Your task to perform on an android device: Open Google Chrome Image 0: 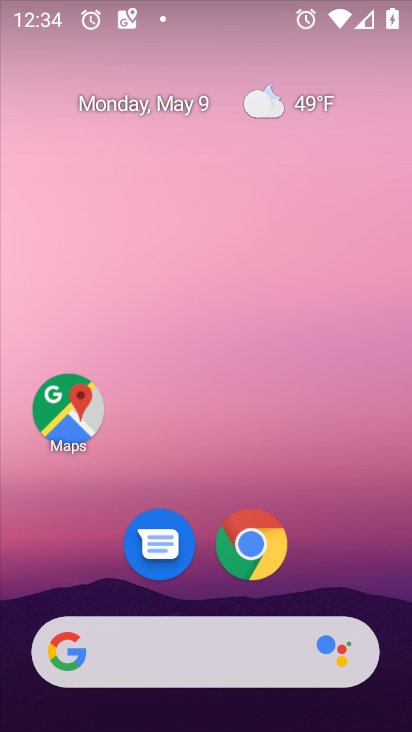
Step 0: click (223, 517)
Your task to perform on an android device: Open Google Chrome Image 1: 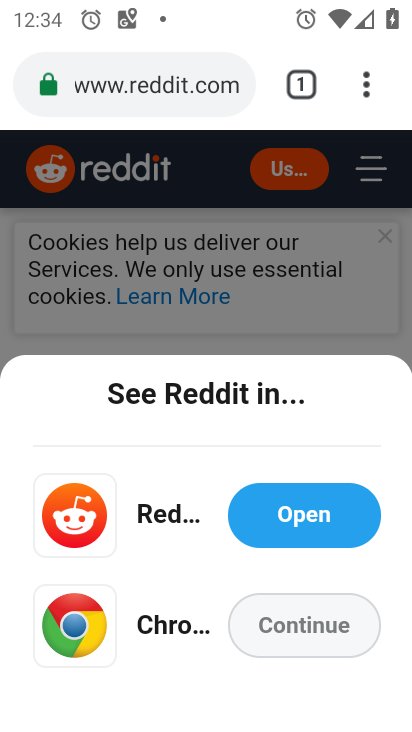
Step 1: task complete